Your task to perform on an android device: Toggle the flashlight Image 0: 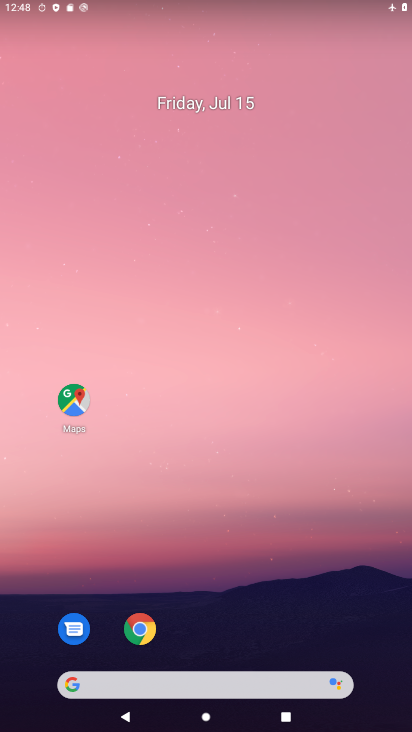
Step 0: drag from (209, 634) to (196, 197)
Your task to perform on an android device: Toggle the flashlight Image 1: 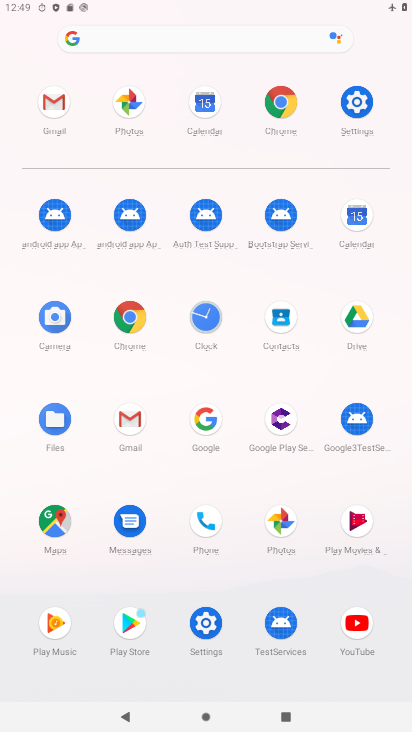
Step 1: click (355, 108)
Your task to perform on an android device: Toggle the flashlight Image 2: 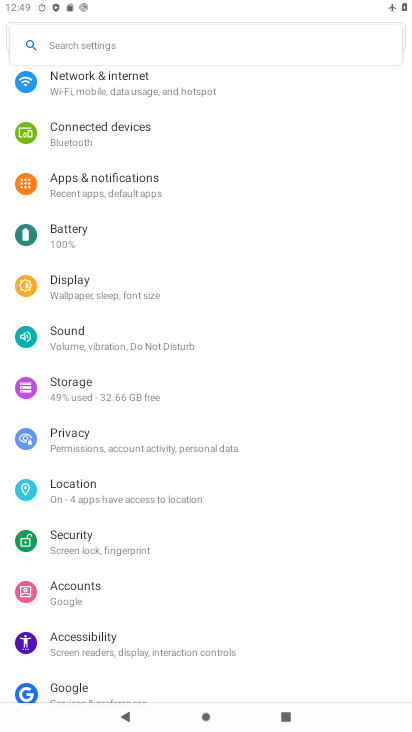
Step 2: click (222, 54)
Your task to perform on an android device: Toggle the flashlight Image 3: 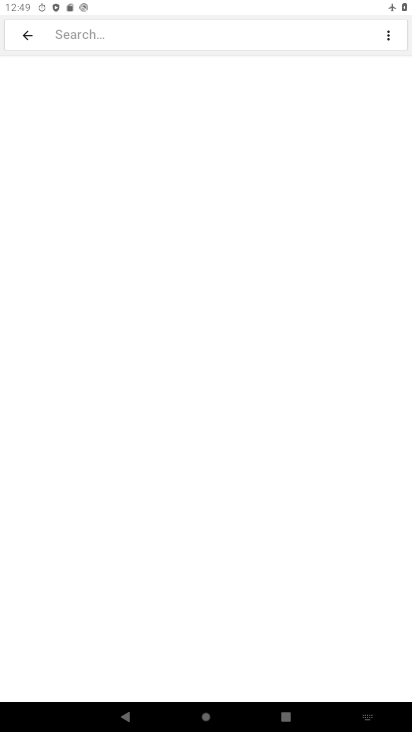
Step 3: type "flashlight"
Your task to perform on an android device: Toggle the flashlight Image 4: 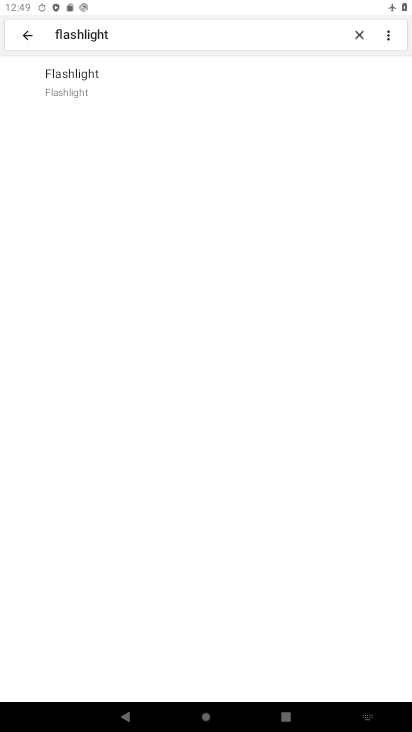
Step 4: click (86, 80)
Your task to perform on an android device: Toggle the flashlight Image 5: 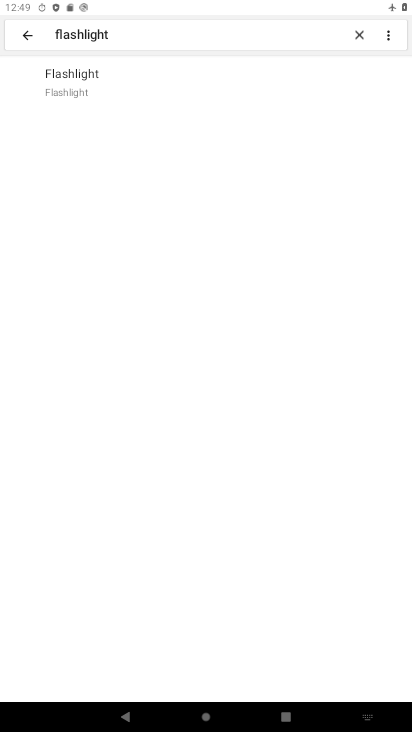
Step 5: click (86, 80)
Your task to perform on an android device: Toggle the flashlight Image 6: 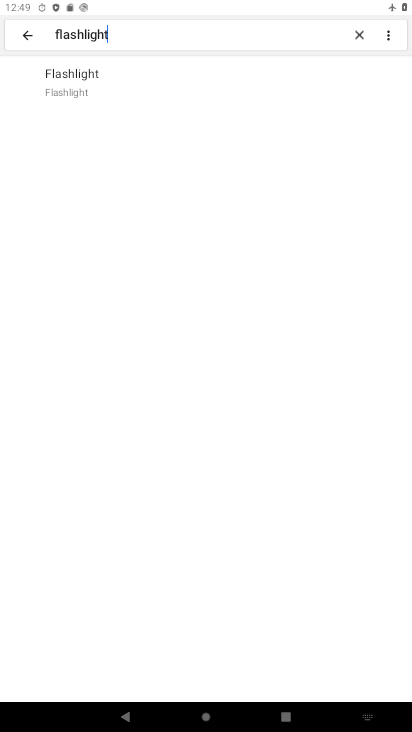
Step 6: click (85, 81)
Your task to perform on an android device: Toggle the flashlight Image 7: 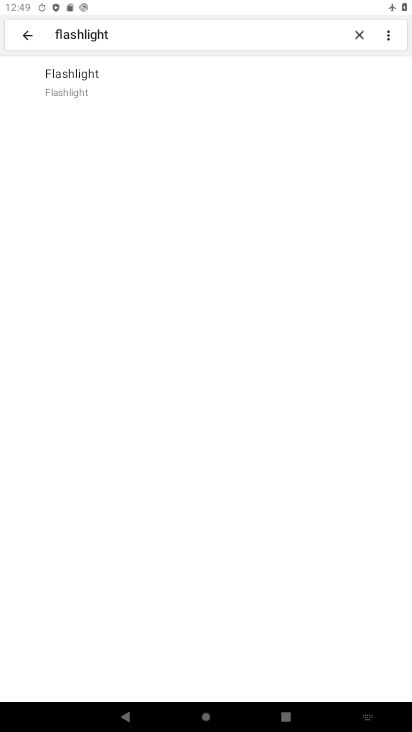
Step 7: task complete